Your task to perform on an android device: check storage Image 0: 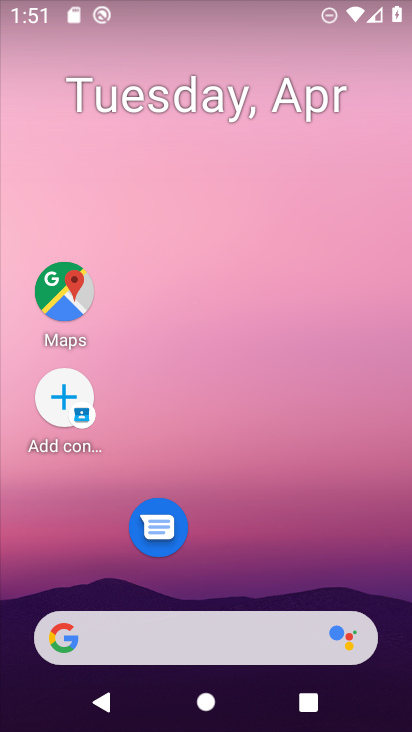
Step 0: drag from (293, 573) to (301, 109)
Your task to perform on an android device: check storage Image 1: 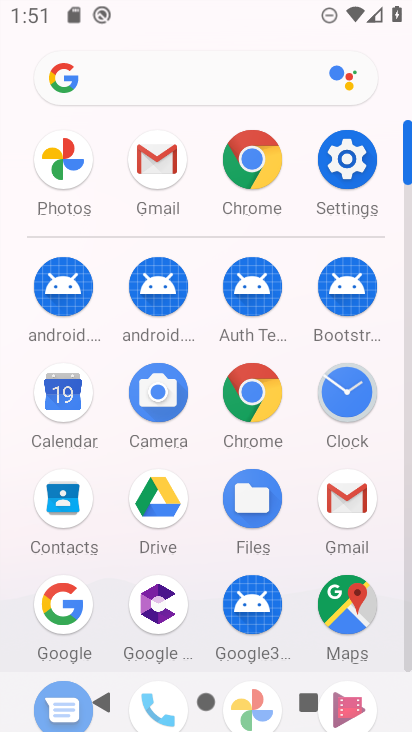
Step 1: click (349, 161)
Your task to perform on an android device: check storage Image 2: 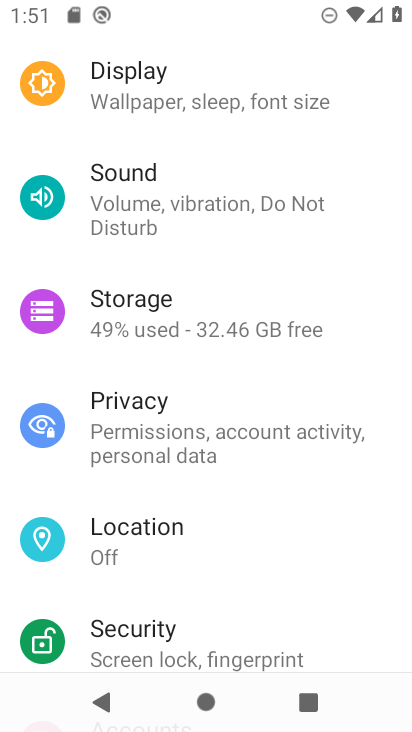
Step 2: click (130, 301)
Your task to perform on an android device: check storage Image 3: 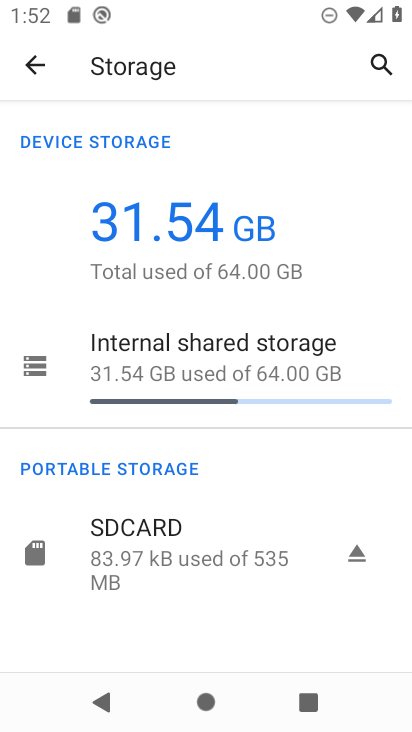
Step 3: task complete